Your task to perform on an android device: Open privacy settings Image 0: 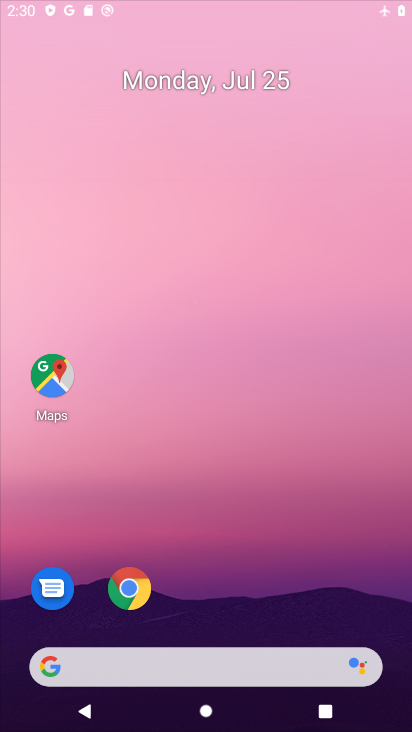
Step 0: press home button
Your task to perform on an android device: Open privacy settings Image 1: 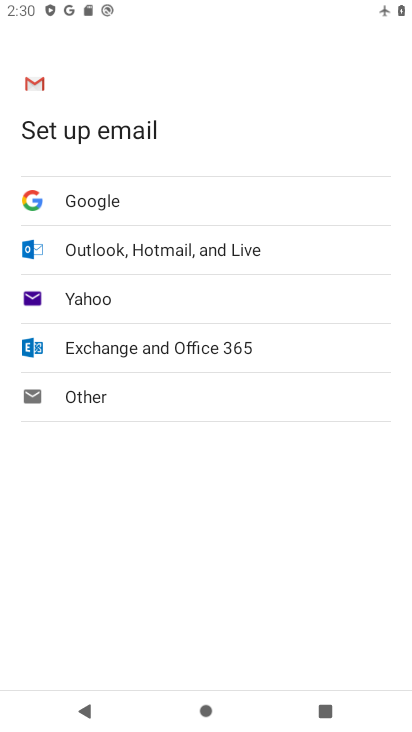
Step 1: drag from (223, 105) to (229, 0)
Your task to perform on an android device: Open privacy settings Image 2: 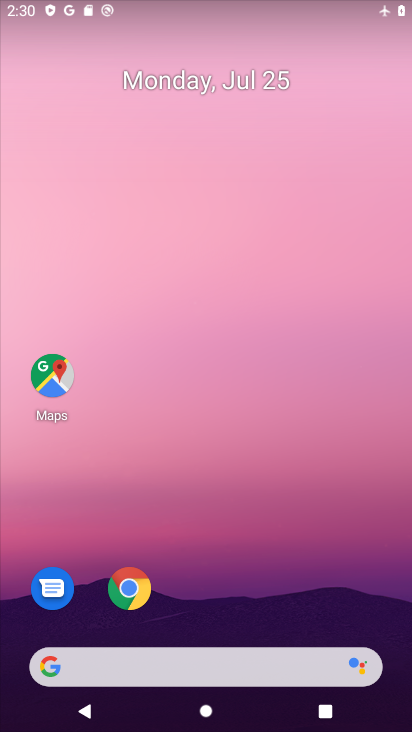
Step 2: drag from (226, 622) to (240, 8)
Your task to perform on an android device: Open privacy settings Image 3: 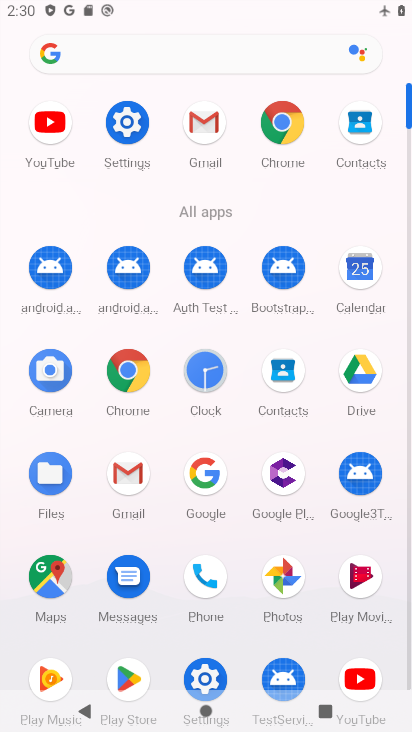
Step 3: click (124, 119)
Your task to perform on an android device: Open privacy settings Image 4: 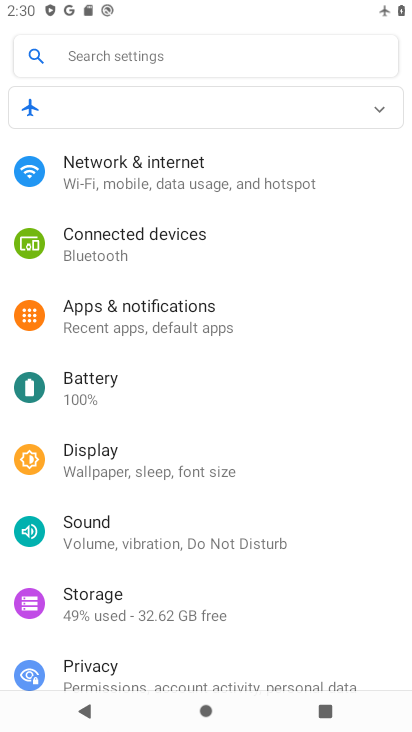
Step 4: click (130, 666)
Your task to perform on an android device: Open privacy settings Image 5: 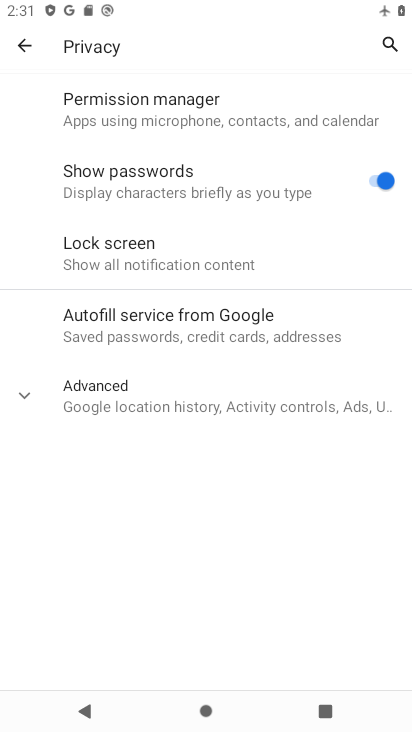
Step 5: click (22, 396)
Your task to perform on an android device: Open privacy settings Image 6: 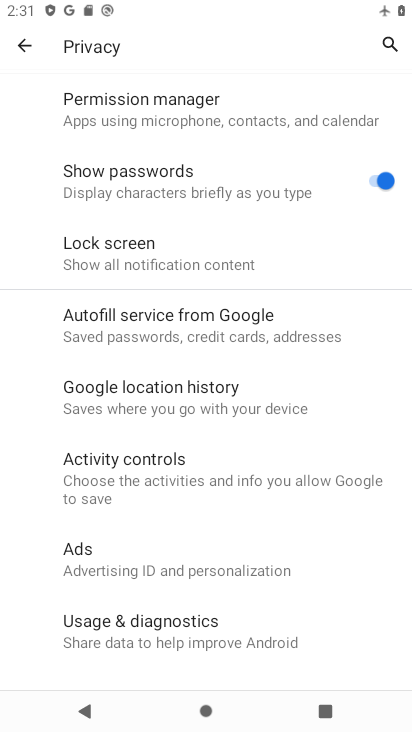
Step 6: task complete